Your task to perform on an android device: turn off smart reply in the gmail app Image 0: 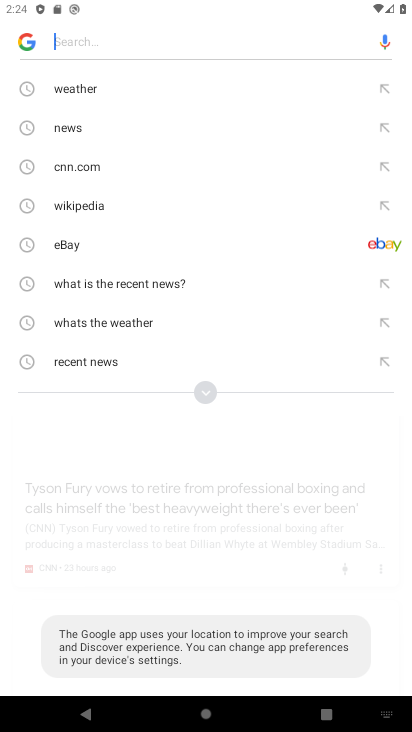
Step 0: press home button
Your task to perform on an android device: turn off smart reply in the gmail app Image 1: 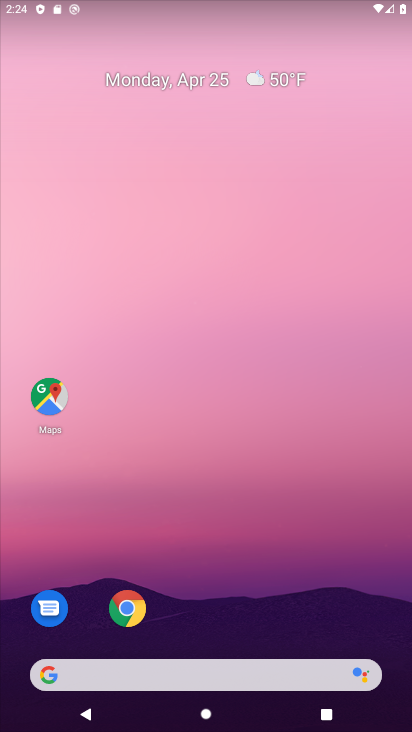
Step 1: drag from (216, 619) to (219, 152)
Your task to perform on an android device: turn off smart reply in the gmail app Image 2: 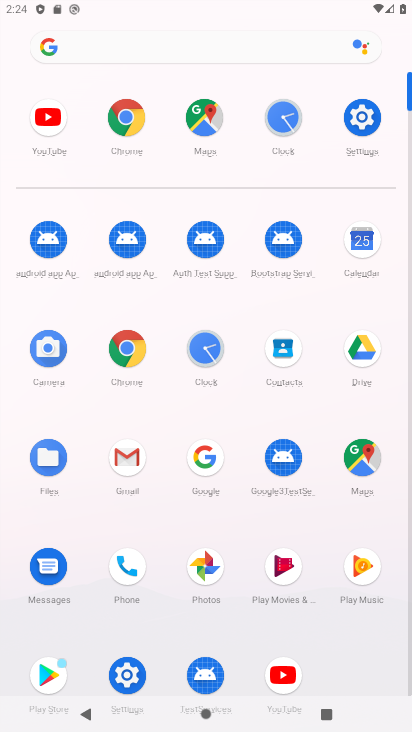
Step 2: click (136, 454)
Your task to perform on an android device: turn off smart reply in the gmail app Image 3: 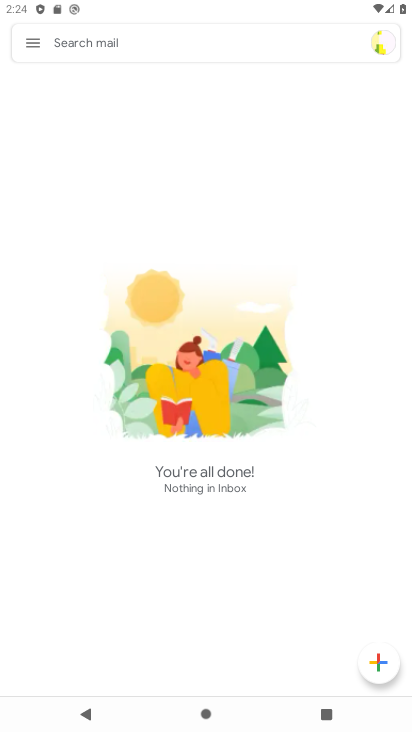
Step 3: click (38, 48)
Your task to perform on an android device: turn off smart reply in the gmail app Image 4: 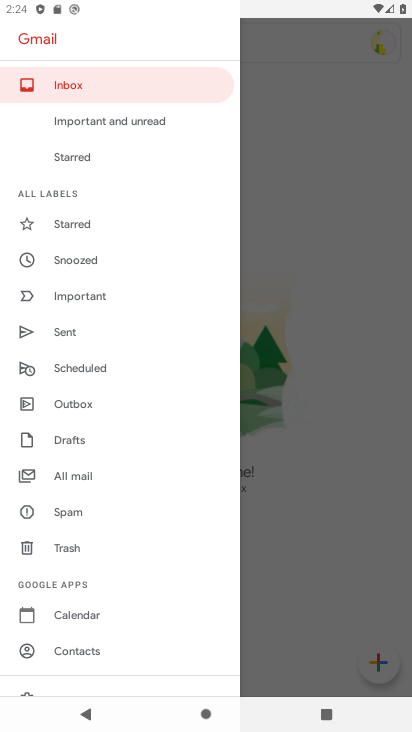
Step 4: drag from (121, 618) to (126, 337)
Your task to perform on an android device: turn off smart reply in the gmail app Image 5: 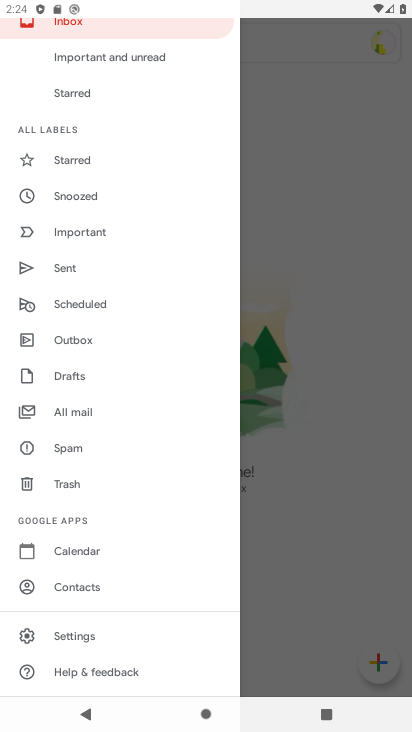
Step 5: click (95, 636)
Your task to perform on an android device: turn off smart reply in the gmail app Image 6: 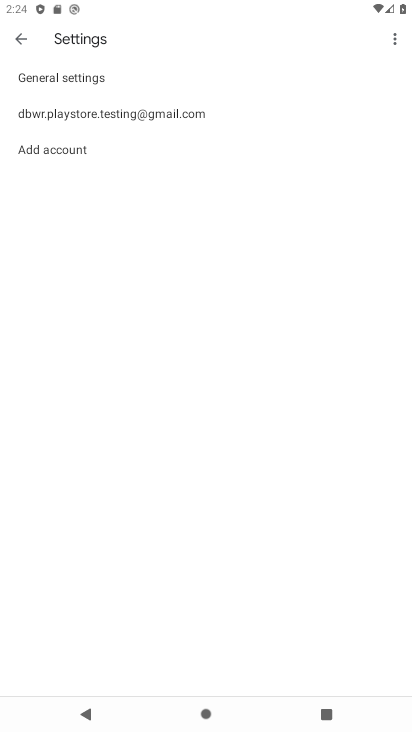
Step 6: click (113, 112)
Your task to perform on an android device: turn off smart reply in the gmail app Image 7: 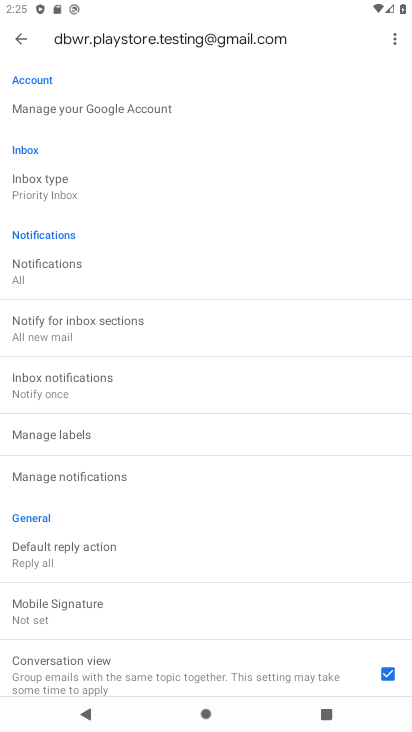
Step 7: drag from (152, 629) to (161, 398)
Your task to perform on an android device: turn off smart reply in the gmail app Image 8: 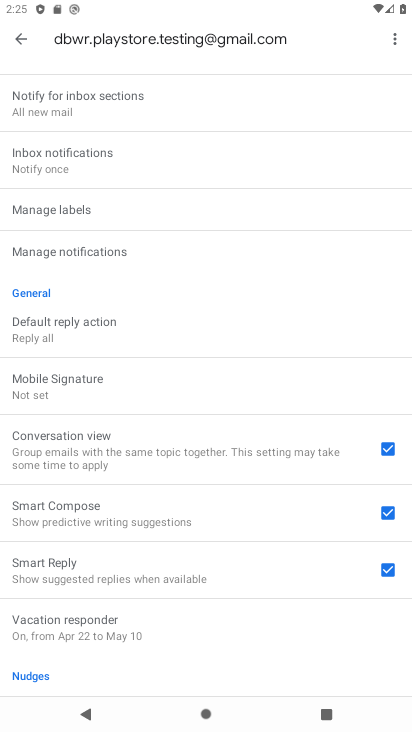
Step 8: click (387, 574)
Your task to perform on an android device: turn off smart reply in the gmail app Image 9: 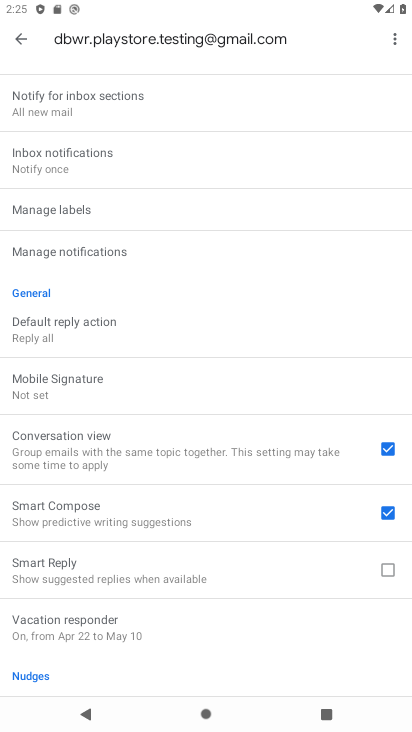
Step 9: task complete